Your task to perform on an android device: turn off javascript in the chrome app Image 0: 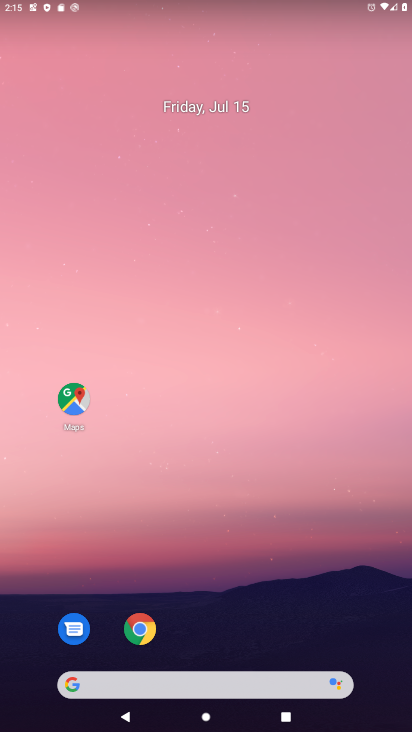
Step 0: drag from (271, 580) to (242, 233)
Your task to perform on an android device: turn off javascript in the chrome app Image 1: 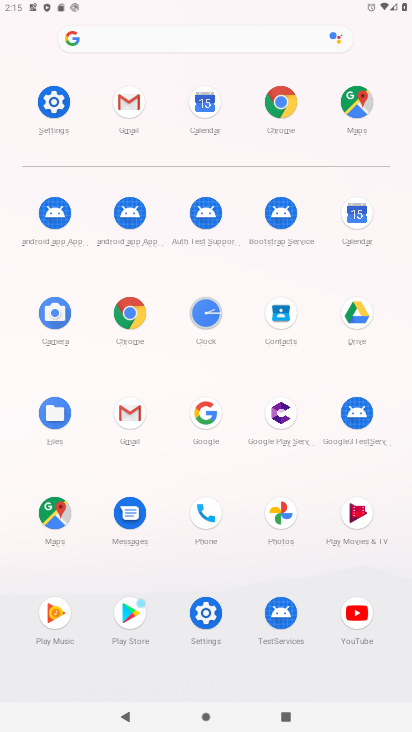
Step 1: click (127, 312)
Your task to perform on an android device: turn off javascript in the chrome app Image 2: 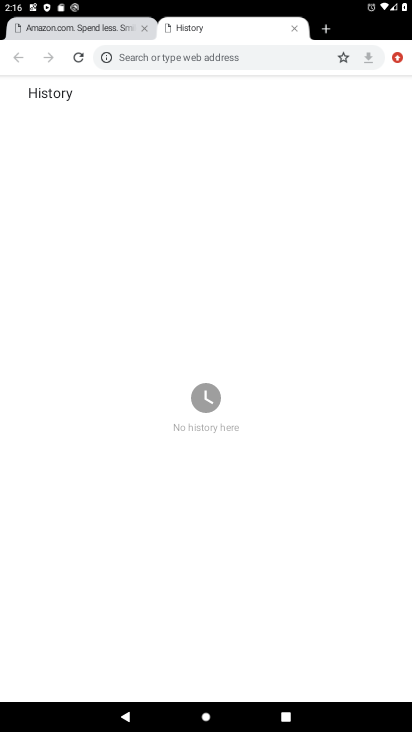
Step 2: drag from (405, 53) to (284, 300)
Your task to perform on an android device: turn off javascript in the chrome app Image 3: 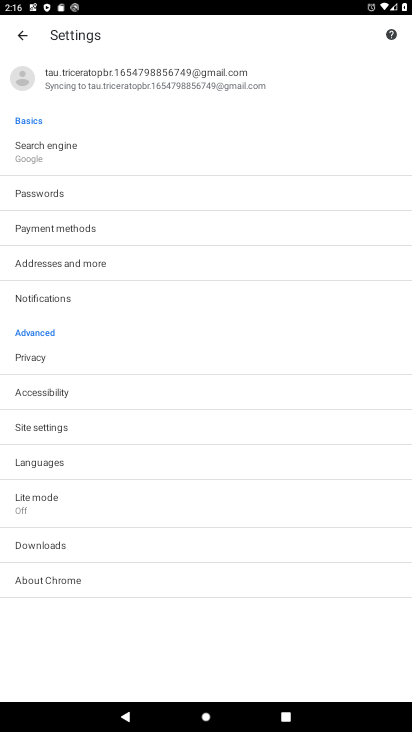
Step 3: click (83, 420)
Your task to perform on an android device: turn off javascript in the chrome app Image 4: 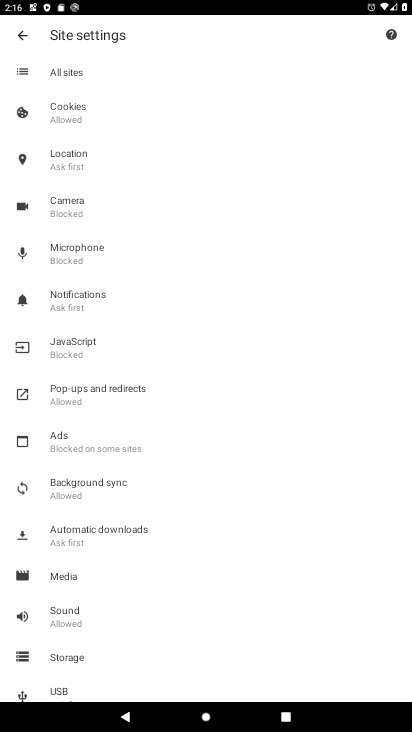
Step 4: click (78, 355)
Your task to perform on an android device: turn off javascript in the chrome app Image 5: 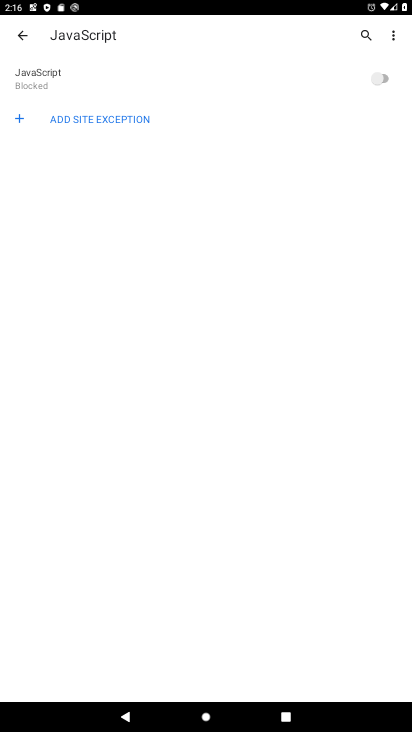
Step 5: task complete